Your task to perform on an android device: check data usage Image 0: 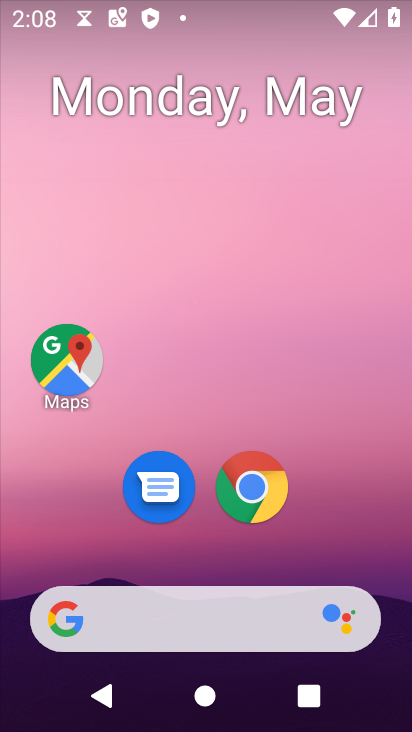
Step 0: drag from (395, 594) to (324, 278)
Your task to perform on an android device: check data usage Image 1: 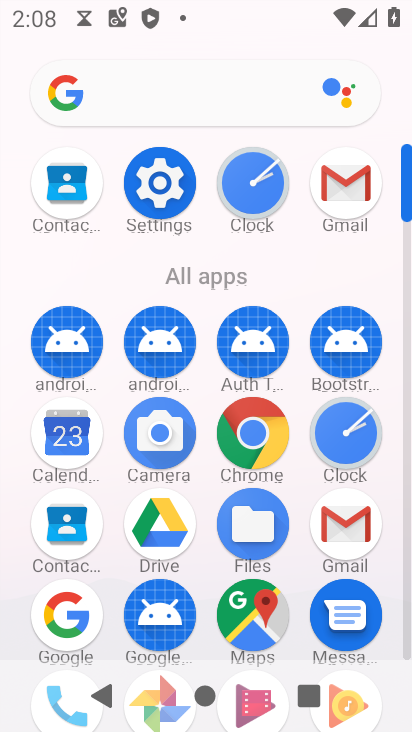
Step 1: click (162, 194)
Your task to perform on an android device: check data usage Image 2: 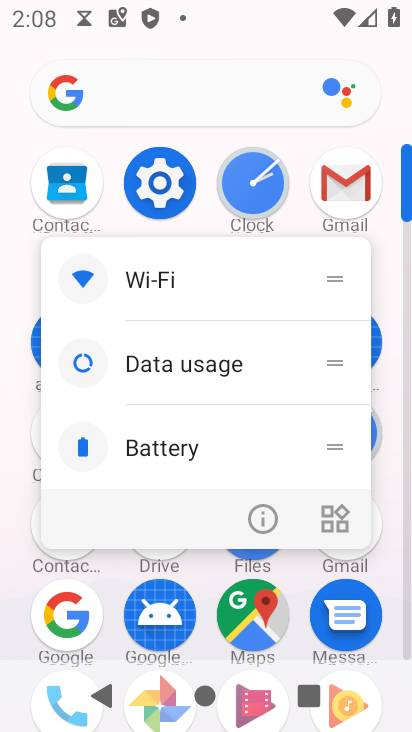
Step 2: click (165, 194)
Your task to perform on an android device: check data usage Image 3: 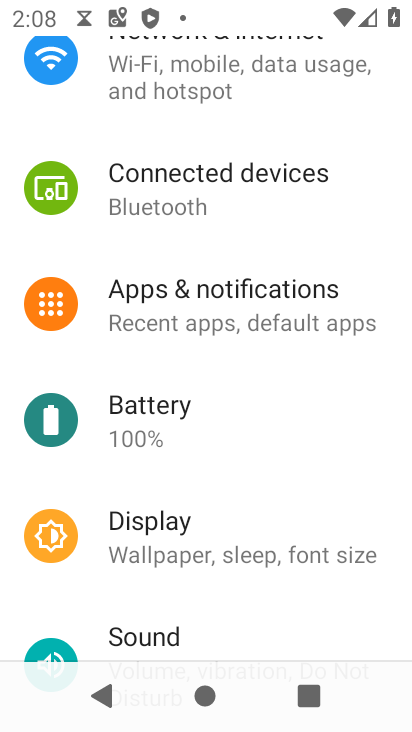
Step 3: click (216, 83)
Your task to perform on an android device: check data usage Image 4: 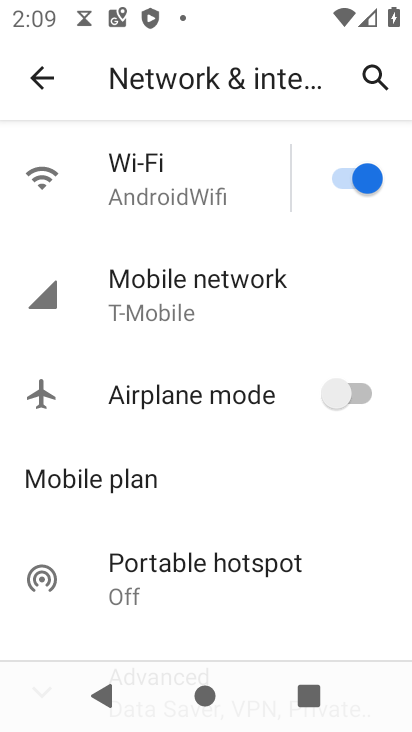
Step 4: click (167, 171)
Your task to perform on an android device: check data usage Image 5: 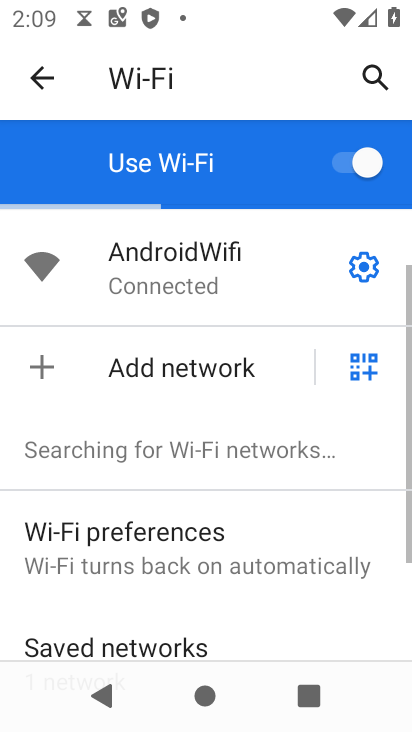
Step 5: drag from (190, 615) to (217, 214)
Your task to perform on an android device: check data usage Image 6: 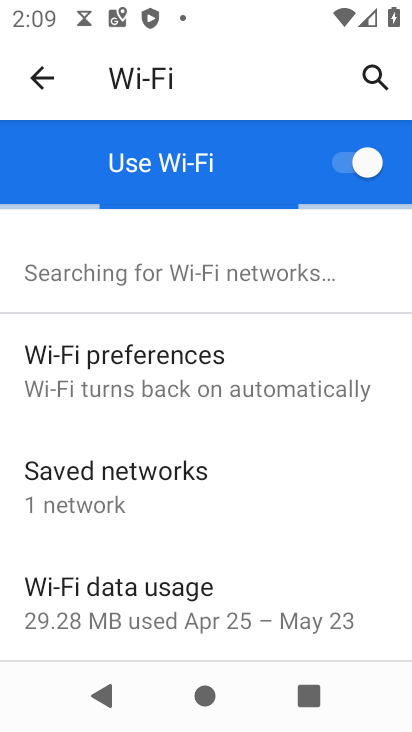
Step 6: click (214, 603)
Your task to perform on an android device: check data usage Image 7: 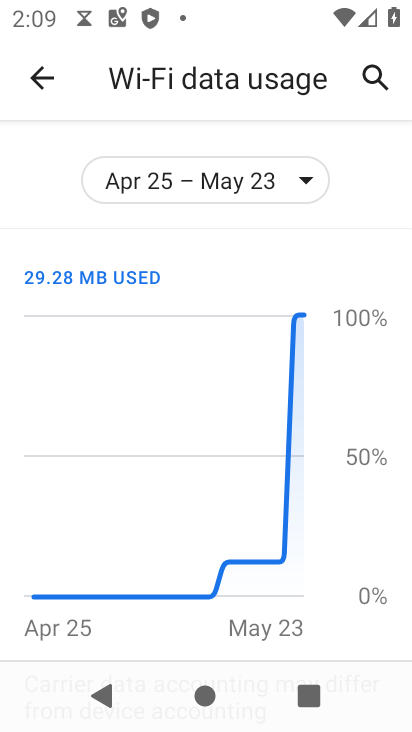
Step 7: task complete